Your task to perform on an android device: Set the phone to "Do not disturb". Image 0: 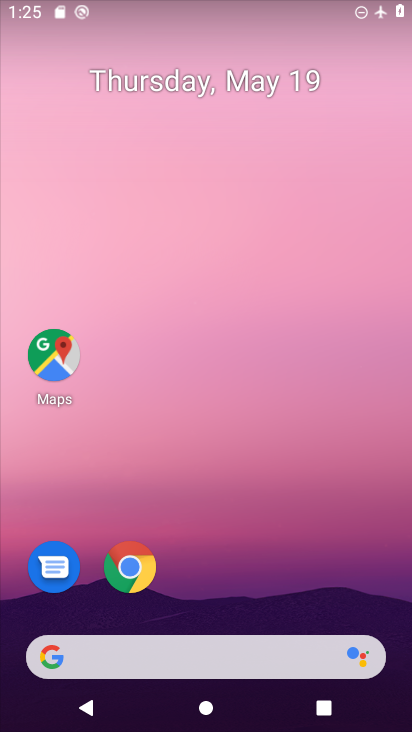
Step 0: drag from (299, 487) to (261, 55)
Your task to perform on an android device: Set the phone to "Do not disturb". Image 1: 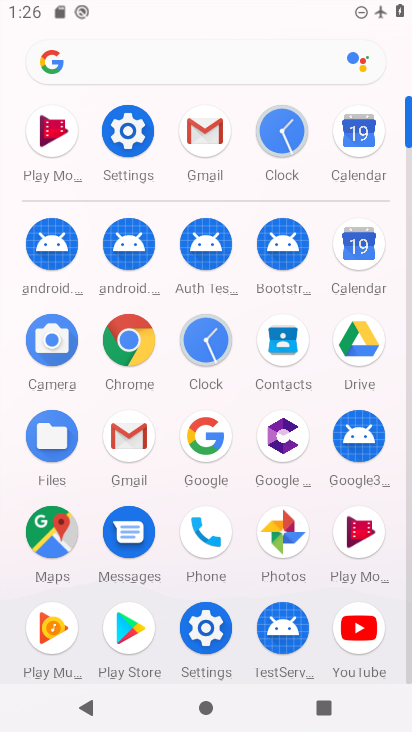
Step 1: click (139, 135)
Your task to perform on an android device: Set the phone to "Do not disturb". Image 2: 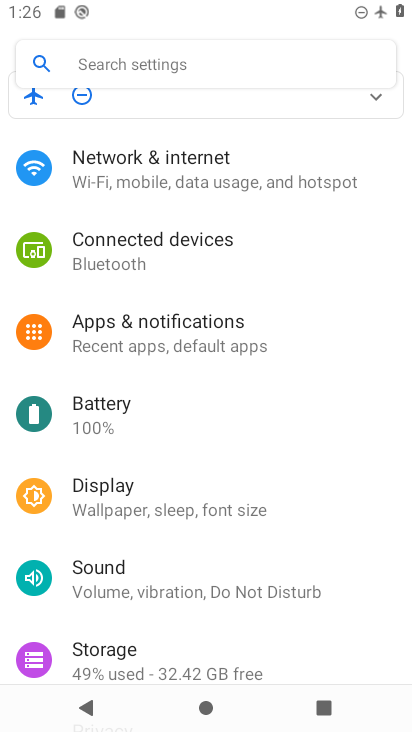
Step 2: click (214, 574)
Your task to perform on an android device: Set the phone to "Do not disturb". Image 3: 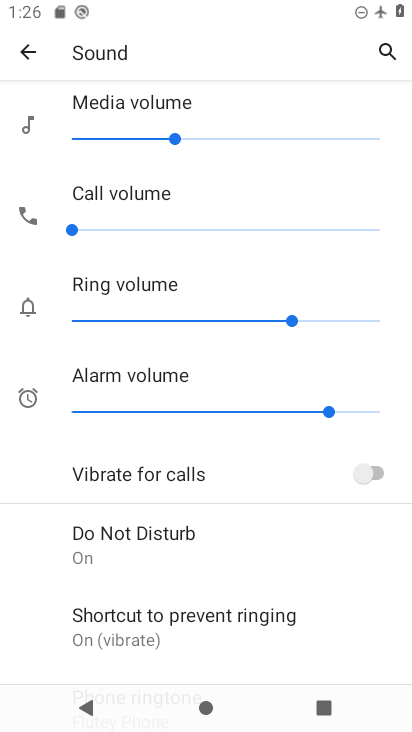
Step 3: task complete